Your task to perform on an android device: turn on showing notifications on the lock screen Image 0: 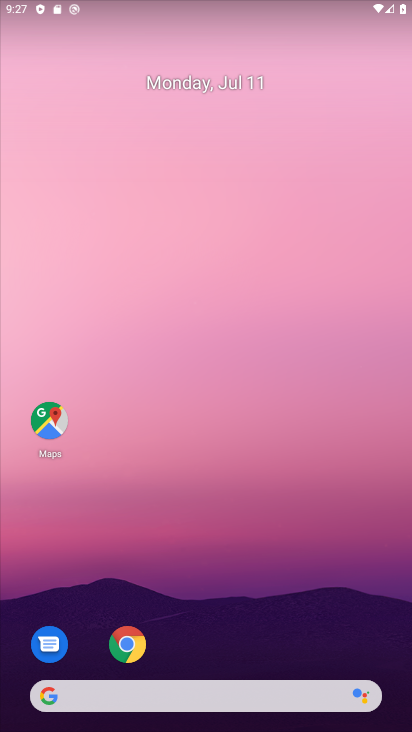
Step 0: drag from (212, 643) to (242, 14)
Your task to perform on an android device: turn on showing notifications on the lock screen Image 1: 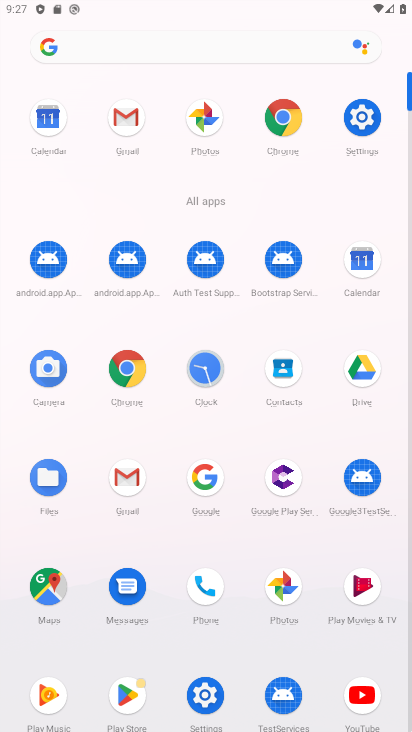
Step 1: click (359, 114)
Your task to perform on an android device: turn on showing notifications on the lock screen Image 2: 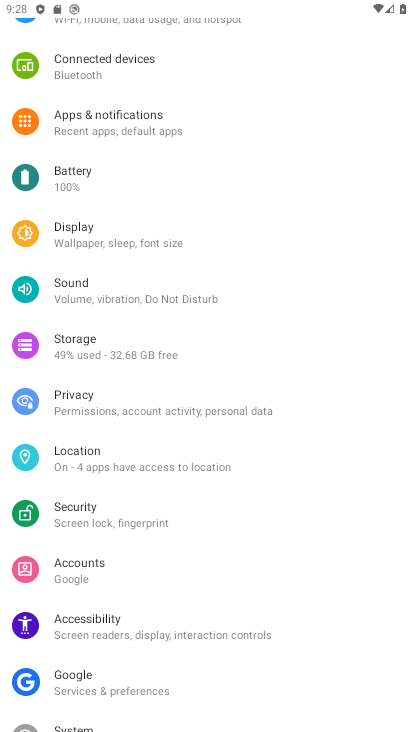
Step 2: click (172, 114)
Your task to perform on an android device: turn on showing notifications on the lock screen Image 3: 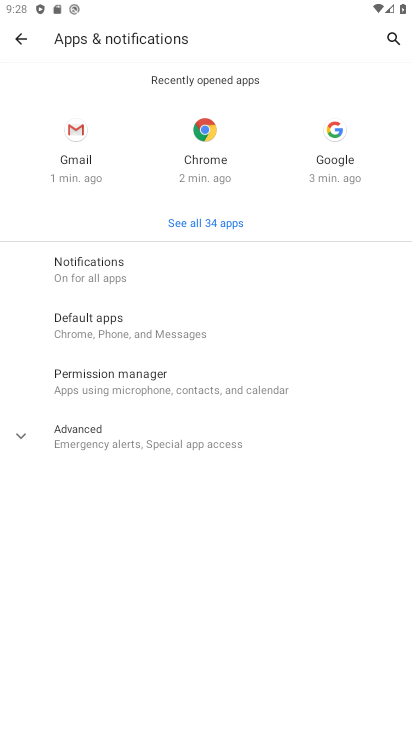
Step 3: click (137, 268)
Your task to perform on an android device: turn on showing notifications on the lock screen Image 4: 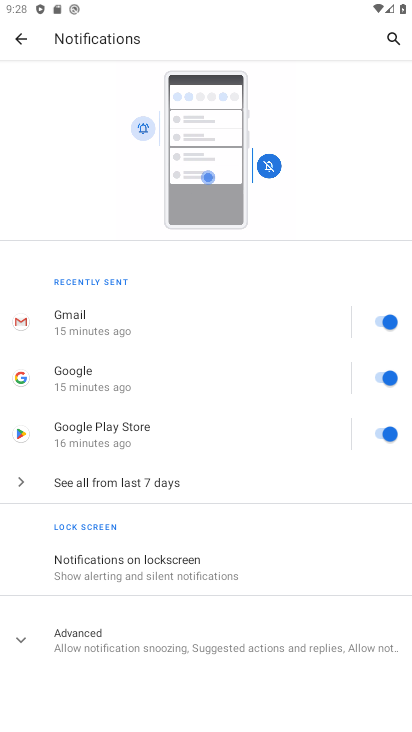
Step 4: click (197, 566)
Your task to perform on an android device: turn on showing notifications on the lock screen Image 5: 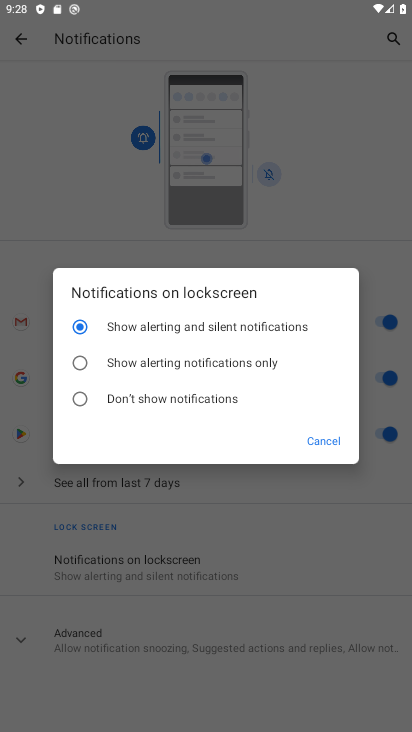
Step 5: click (84, 360)
Your task to perform on an android device: turn on showing notifications on the lock screen Image 6: 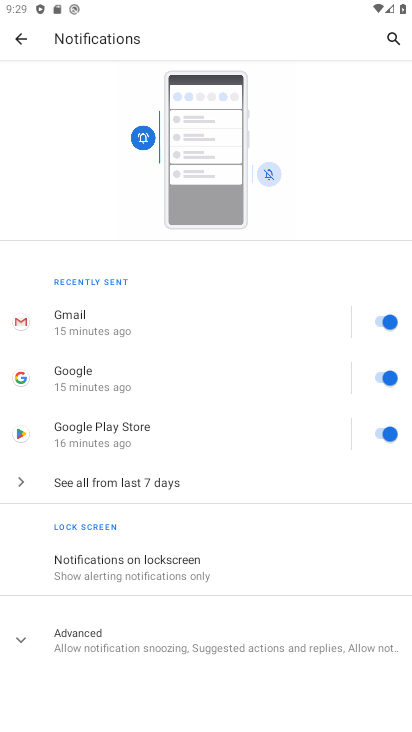
Step 6: click (167, 565)
Your task to perform on an android device: turn on showing notifications on the lock screen Image 7: 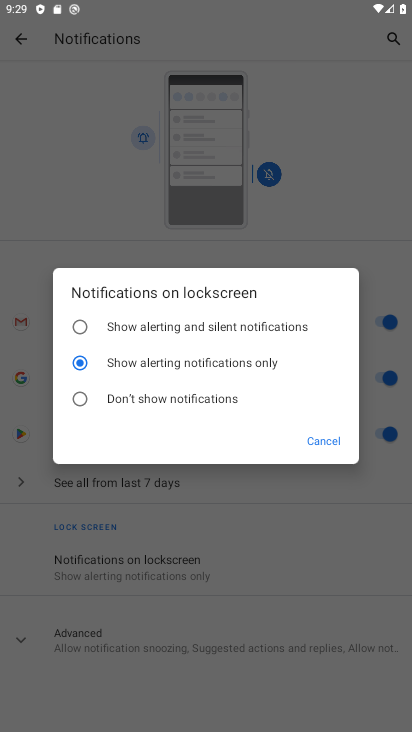
Step 7: click (81, 324)
Your task to perform on an android device: turn on showing notifications on the lock screen Image 8: 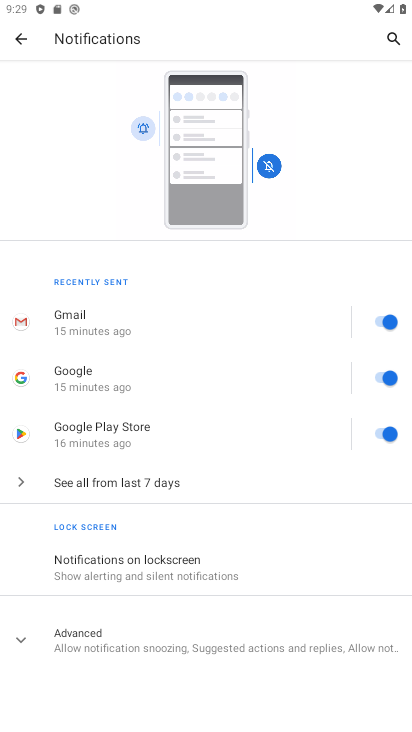
Step 8: task complete